Your task to perform on an android device: Open Google Chrome Image 0: 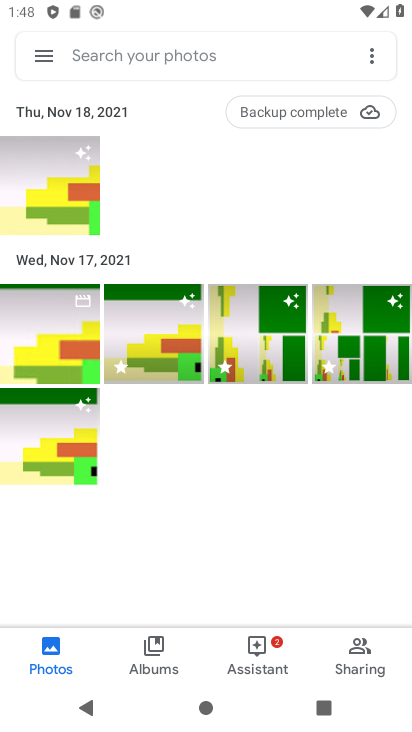
Step 0: press home button
Your task to perform on an android device: Open Google Chrome Image 1: 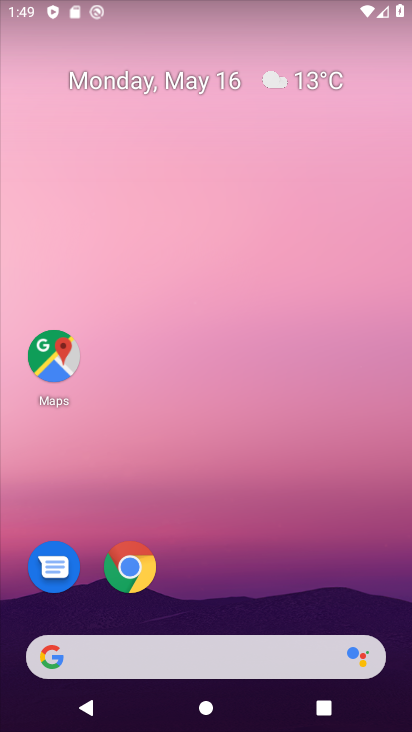
Step 1: click (127, 566)
Your task to perform on an android device: Open Google Chrome Image 2: 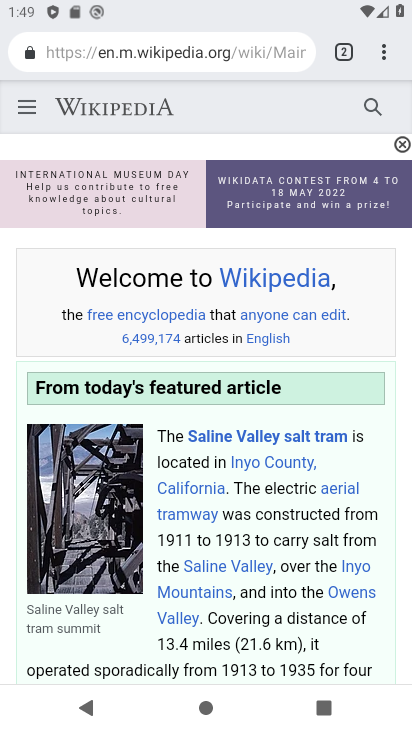
Step 2: task complete